Your task to perform on an android device: What's on my calendar today? Image 0: 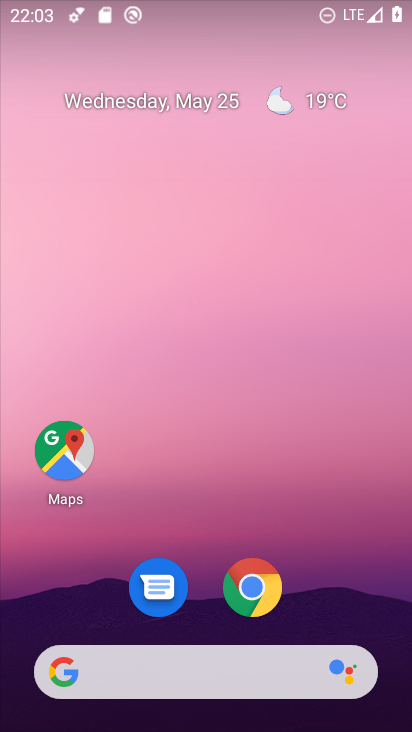
Step 0: drag from (367, 616) to (347, 78)
Your task to perform on an android device: What's on my calendar today? Image 1: 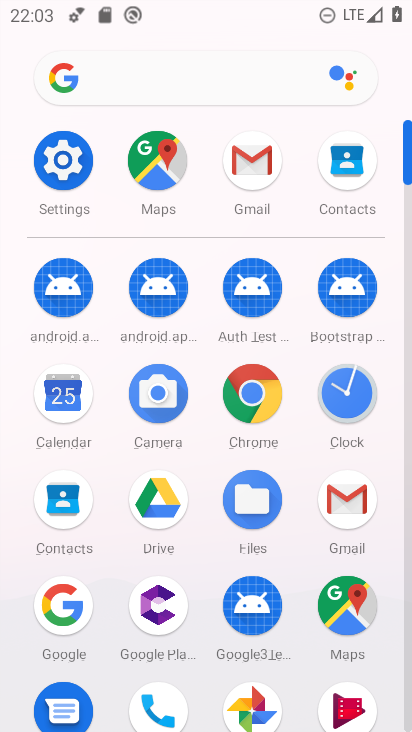
Step 1: click (55, 391)
Your task to perform on an android device: What's on my calendar today? Image 2: 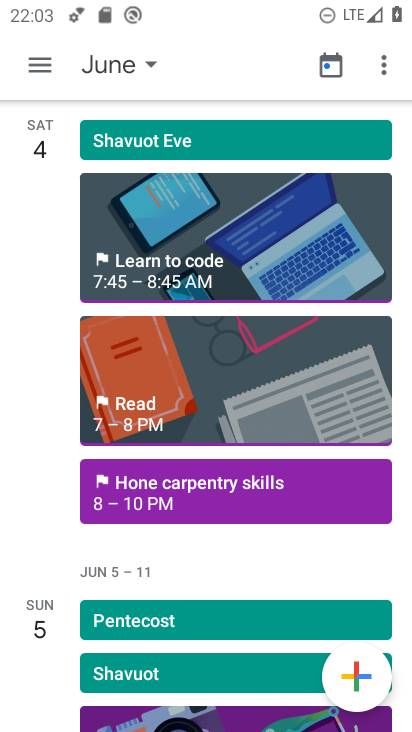
Step 2: click (44, 65)
Your task to perform on an android device: What's on my calendar today? Image 3: 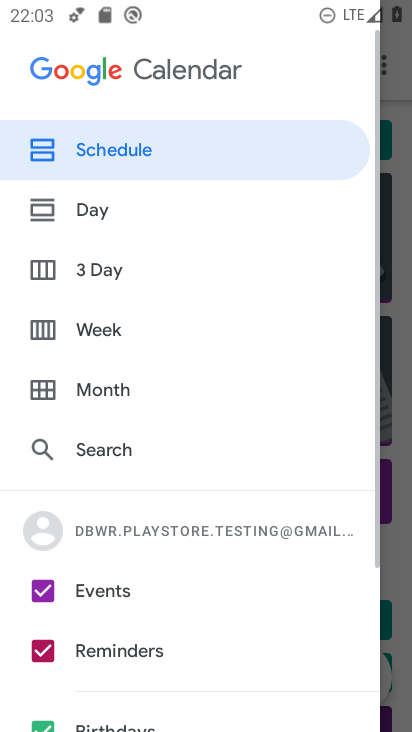
Step 3: click (94, 218)
Your task to perform on an android device: What's on my calendar today? Image 4: 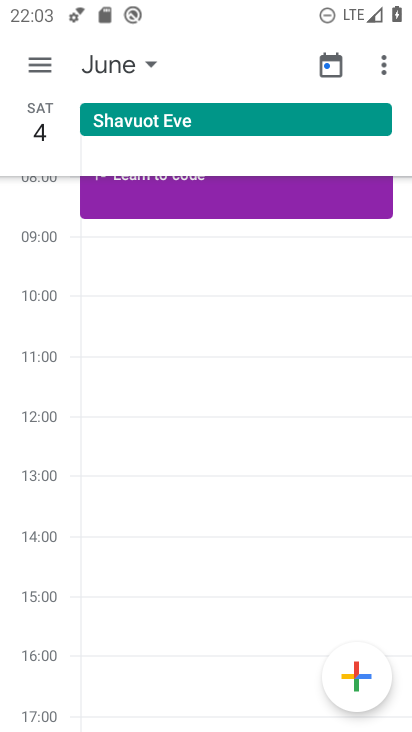
Step 4: click (151, 64)
Your task to perform on an android device: What's on my calendar today? Image 5: 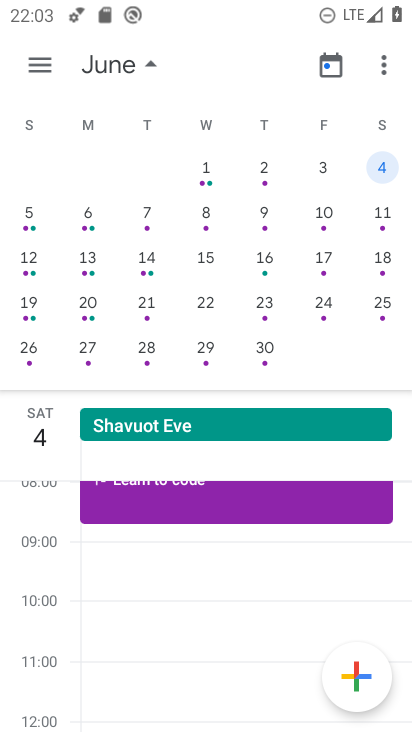
Step 5: drag from (36, 230) to (379, 290)
Your task to perform on an android device: What's on my calendar today? Image 6: 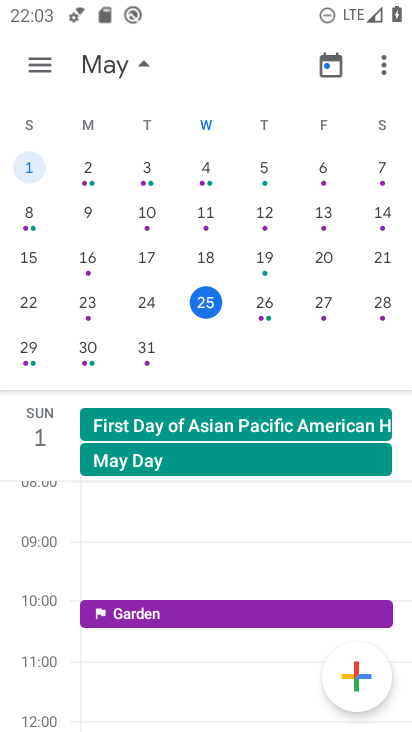
Step 6: click (210, 299)
Your task to perform on an android device: What's on my calendar today? Image 7: 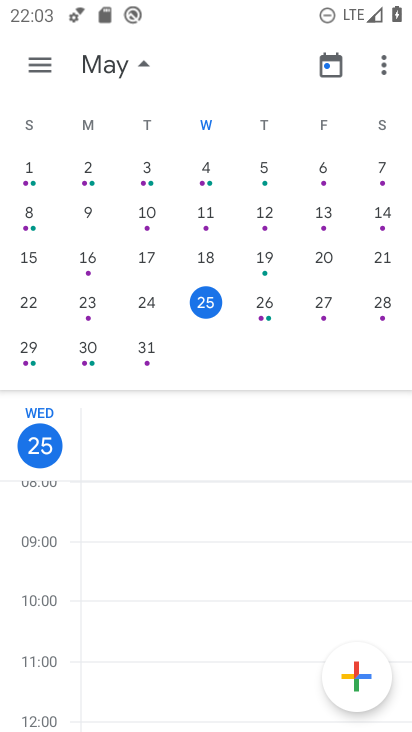
Step 7: task complete